Your task to perform on an android device: What's a good restaurant in Houston? Image 0: 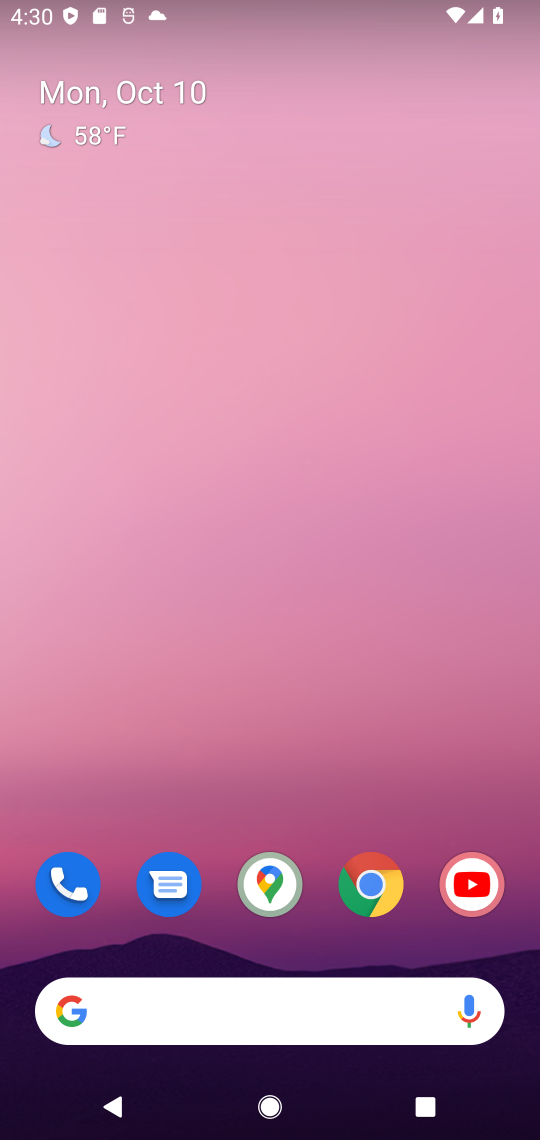
Step 0: click (358, 898)
Your task to perform on an android device: What's a good restaurant in Houston? Image 1: 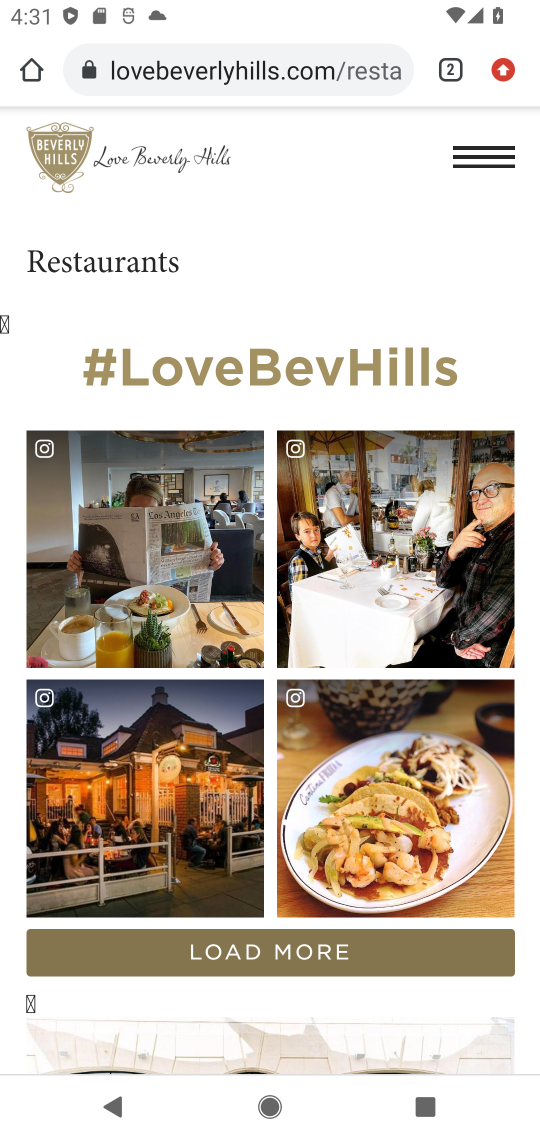
Step 1: click (264, 71)
Your task to perform on an android device: What's a good restaurant in Houston? Image 2: 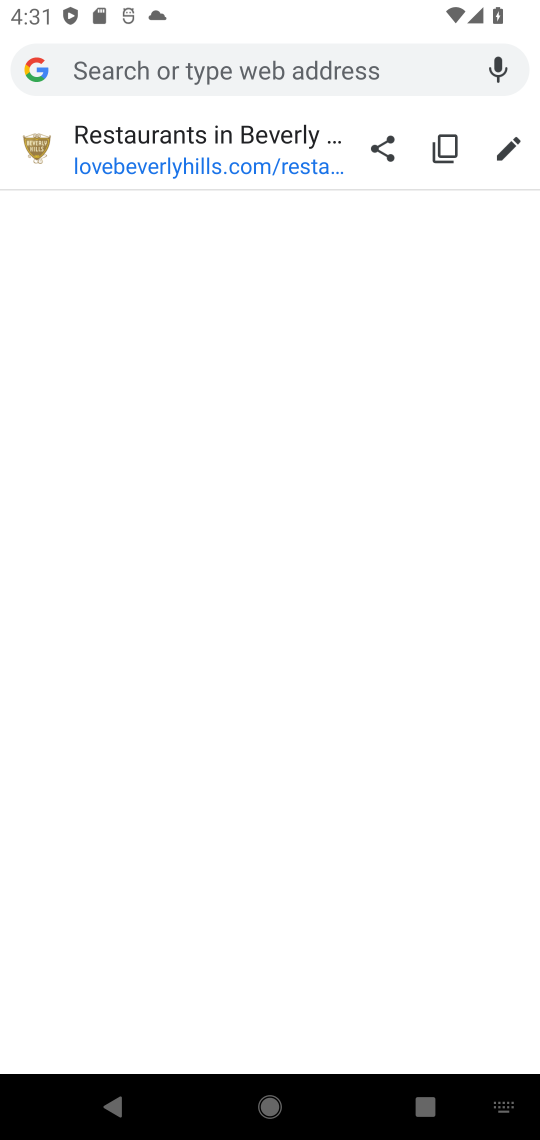
Step 2: type "a good restaurant in Houston"
Your task to perform on an android device: What's a good restaurant in Houston? Image 3: 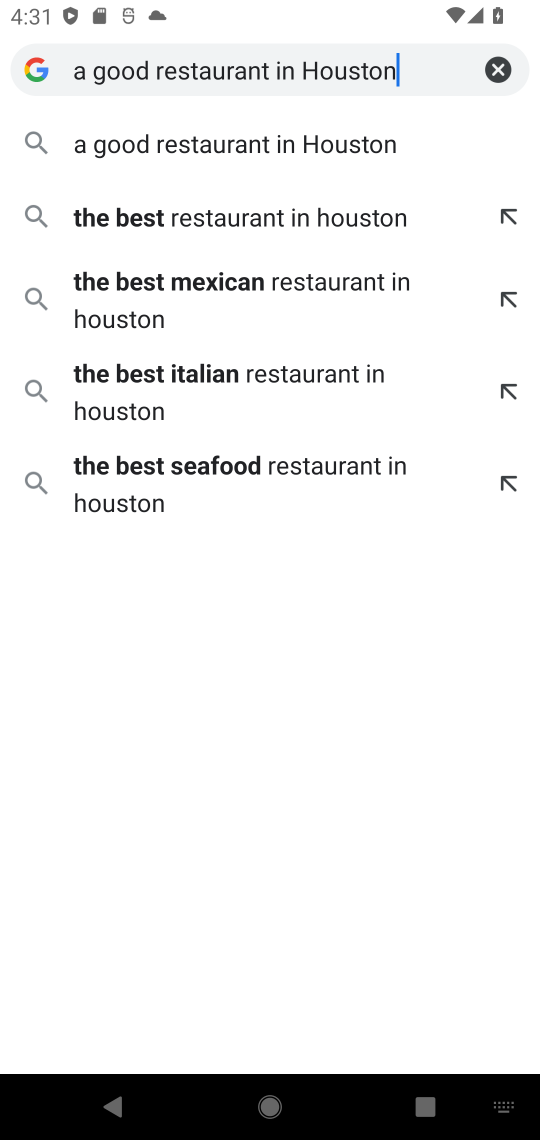
Step 3: click (278, 156)
Your task to perform on an android device: What's a good restaurant in Houston? Image 4: 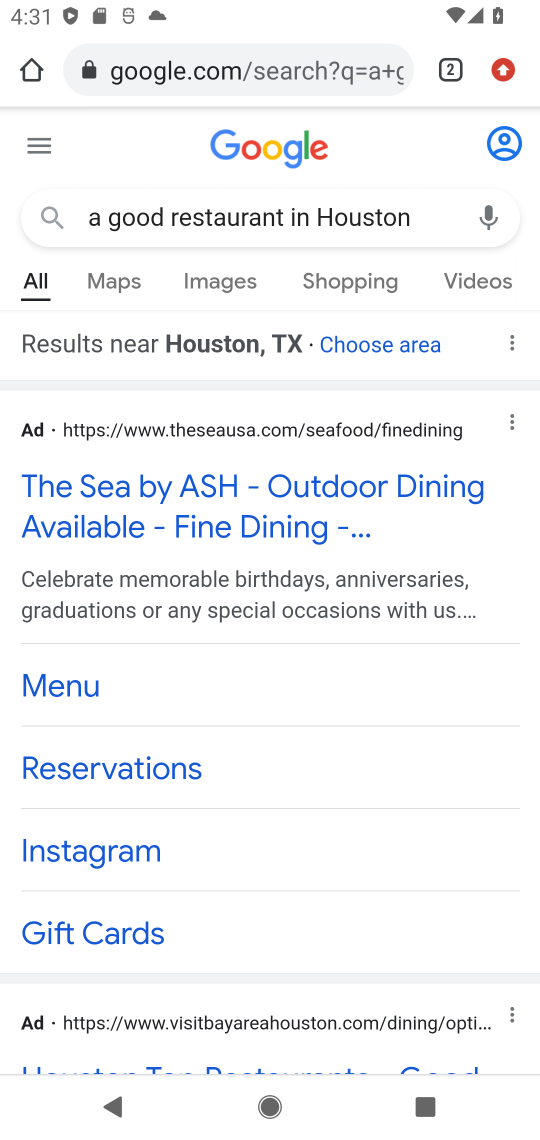
Step 4: click (215, 516)
Your task to perform on an android device: What's a good restaurant in Houston? Image 5: 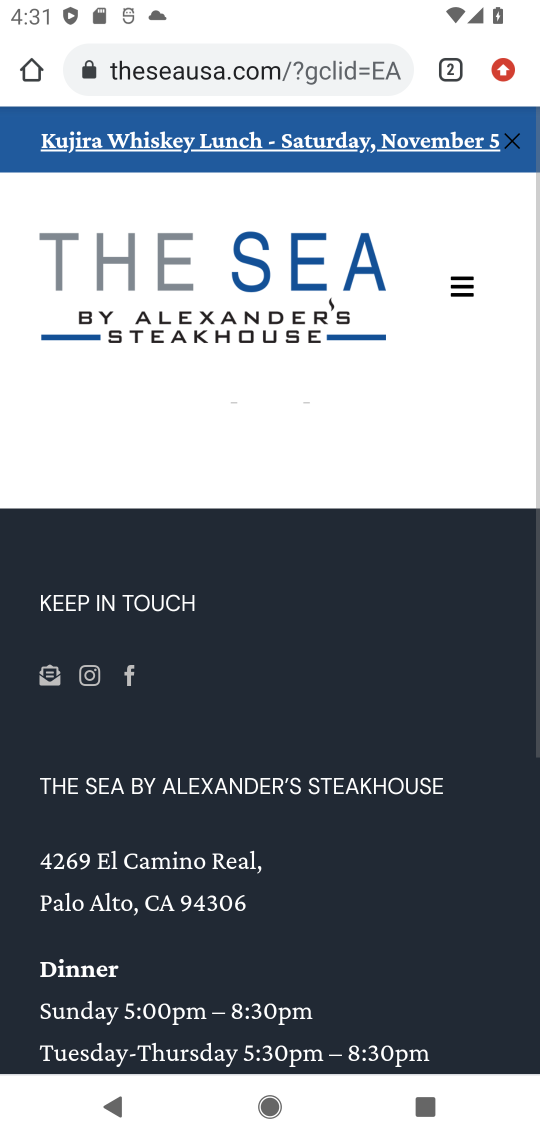
Step 5: click (536, 838)
Your task to perform on an android device: What's a good restaurant in Houston? Image 6: 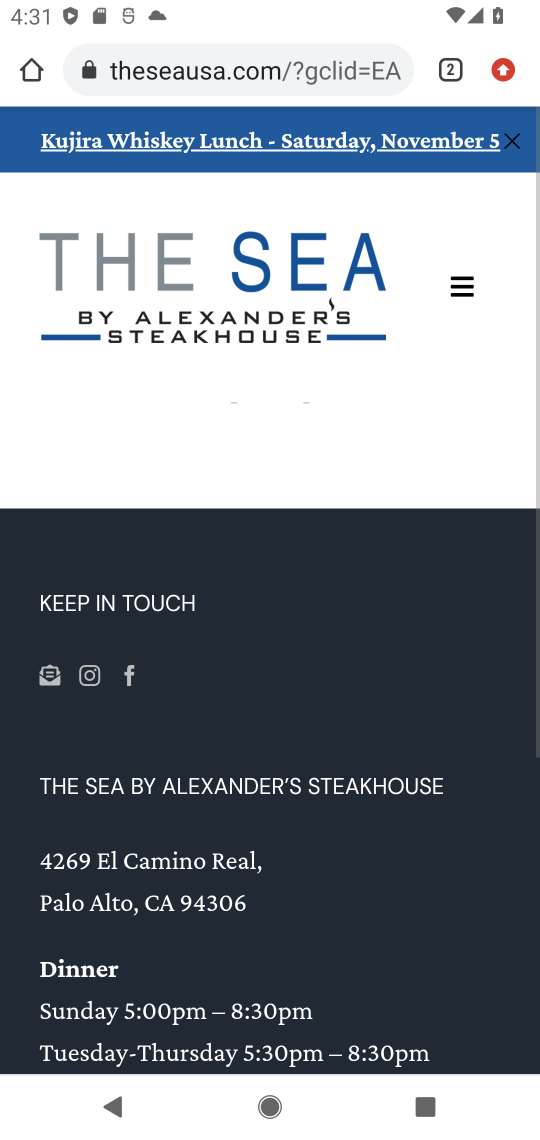
Step 6: task complete